Your task to perform on an android device: turn on wifi Image 0: 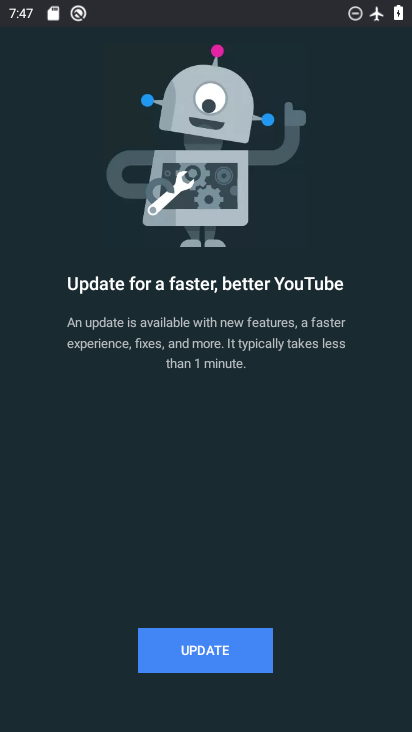
Step 0: press home button
Your task to perform on an android device: turn on wifi Image 1: 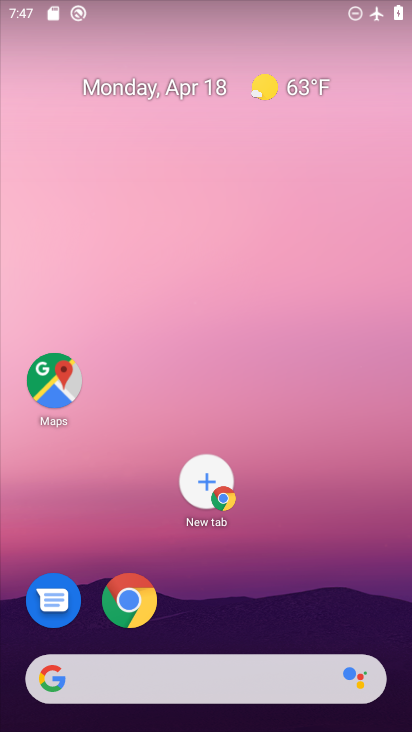
Step 1: drag from (273, 598) to (212, 0)
Your task to perform on an android device: turn on wifi Image 2: 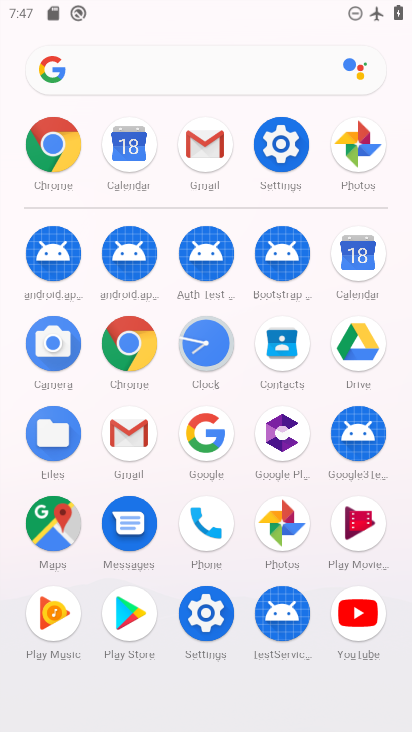
Step 2: click (283, 146)
Your task to perform on an android device: turn on wifi Image 3: 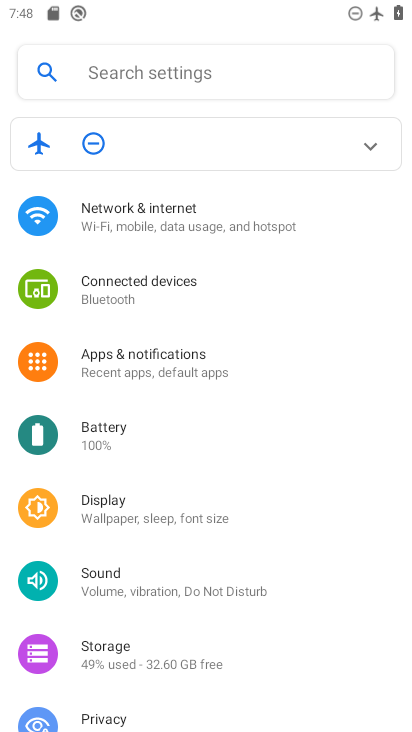
Step 3: click (152, 217)
Your task to perform on an android device: turn on wifi Image 4: 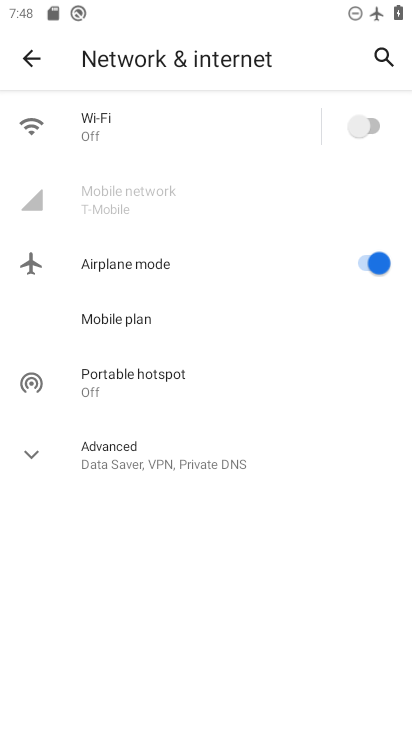
Step 4: click (357, 123)
Your task to perform on an android device: turn on wifi Image 5: 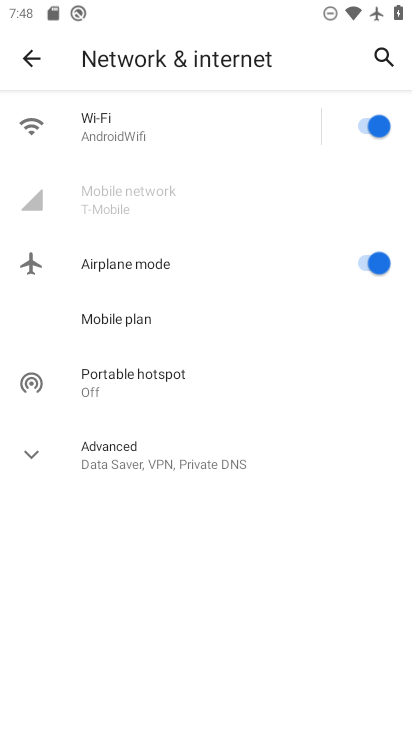
Step 5: task complete